Your task to perform on an android device: What's the weather going to be tomorrow? Image 0: 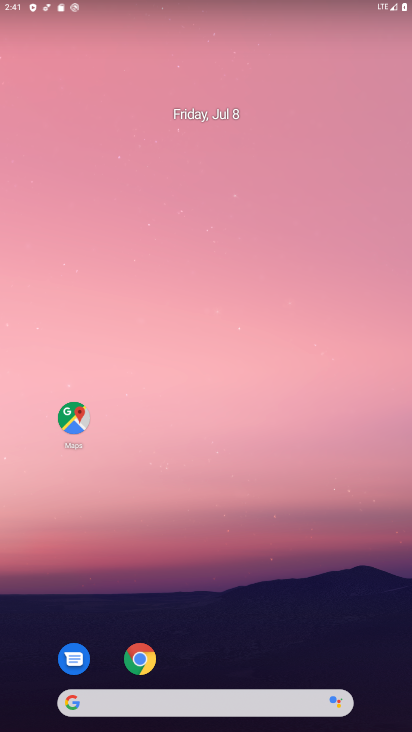
Step 0: press home button
Your task to perform on an android device: What's the weather going to be tomorrow? Image 1: 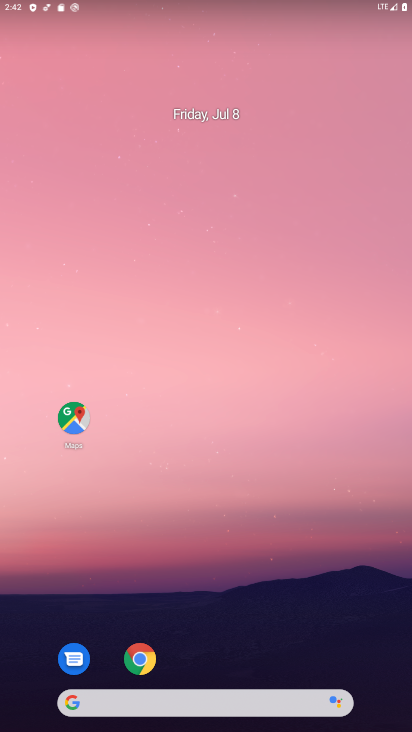
Step 1: click (183, 699)
Your task to perform on an android device: What's the weather going to be tomorrow? Image 2: 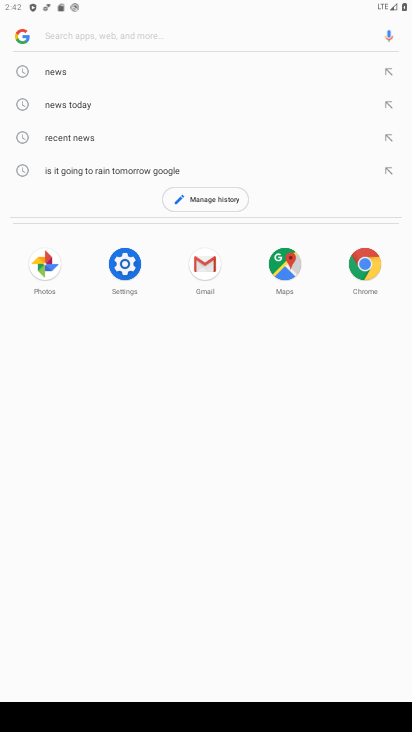
Step 2: click (171, 170)
Your task to perform on an android device: What's the weather going to be tomorrow? Image 3: 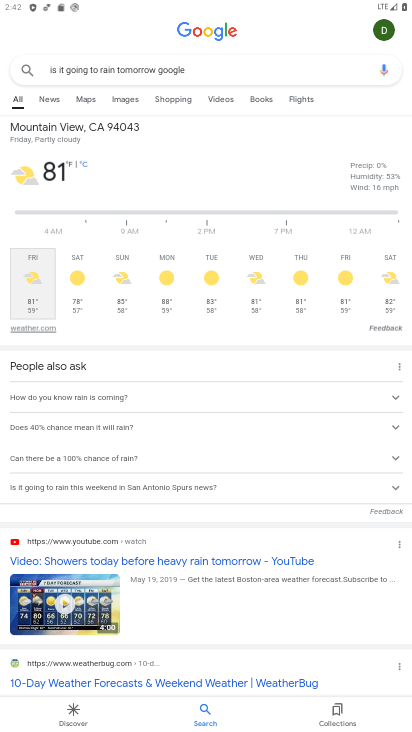
Step 3: click (74, 276)
Your task to perform on an android device: What's the weather going to be tomorrow? Image 4: 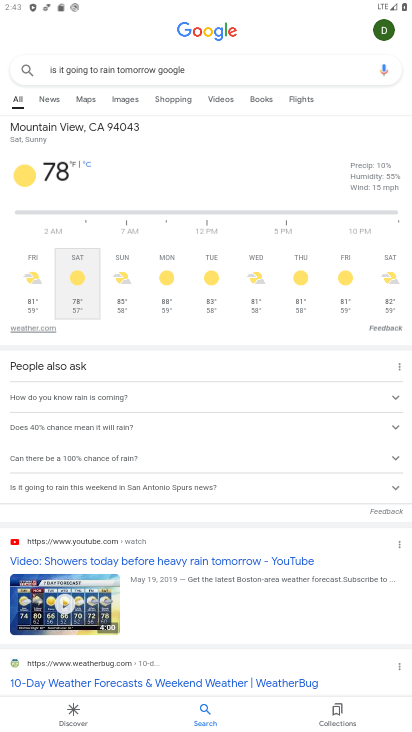
Step 4: task complete